Your task to perform on an android device: add a label to a message in the gmail app Image 0: 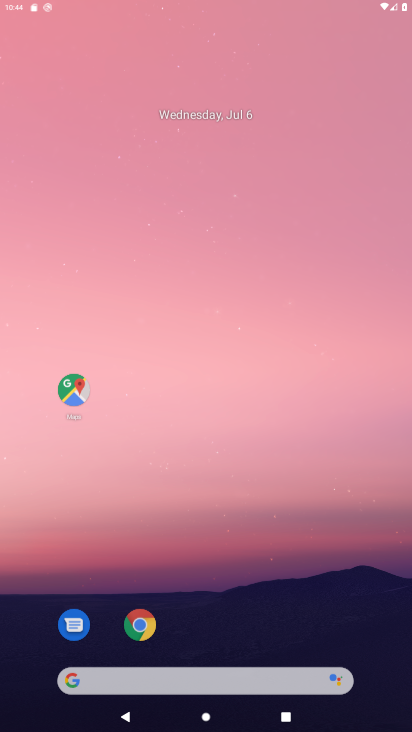
Step 0: click (232, 110)
Your task to perform on an android device: add a label to a message in the gmail app Image 1: 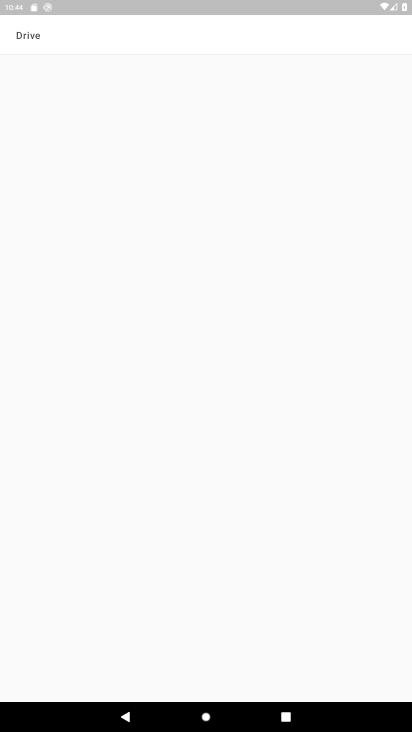
Step 1: drag from (224, 631) to (240, 172)
Your task to perform on an android device: add a label to a message in the gmail app Image 2: 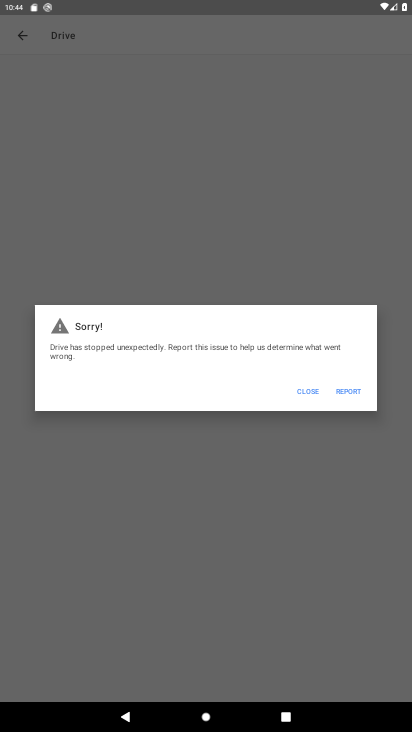
Step 2: press home button
Your task to perform on an android device: add a label to a message in the gmail app Image 3: 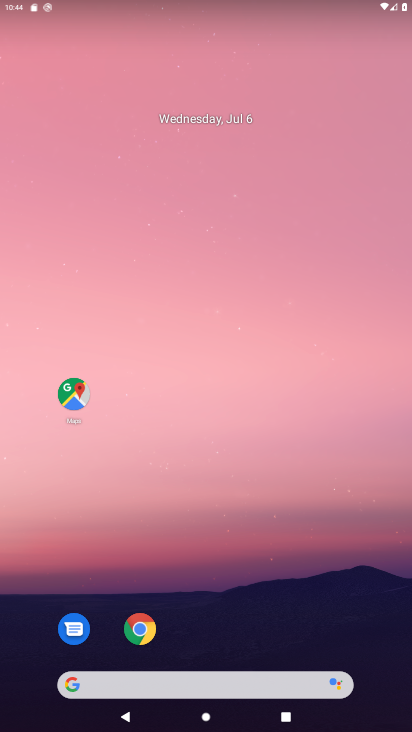
Step 3: drag from (217, 647) to (214, 130)
Your task to perform on an android device: add a label to a message in the gmail app Image 4: 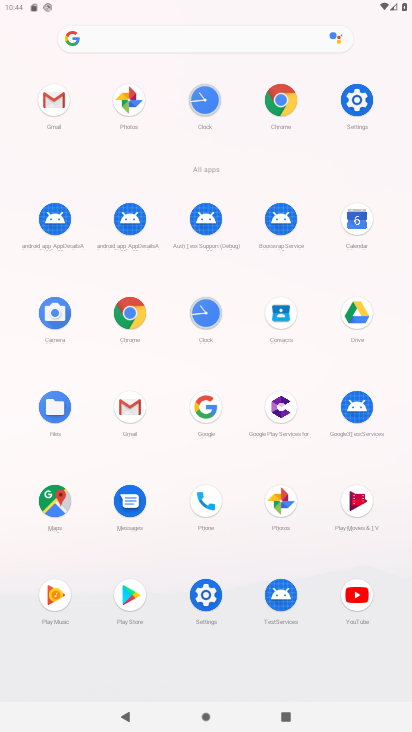
Step 4: click (53, 95)
Your task to perform on an android device: add a label to a message in the gmail app Image 5: 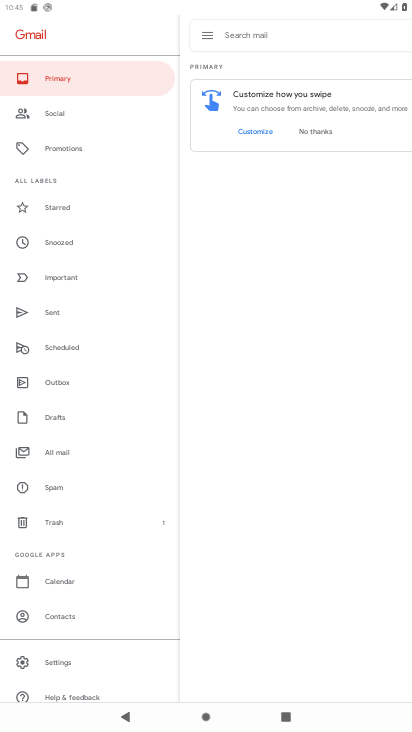
Step 5: click (312, 132)
Your task to perform on an android device: add a label to a message in the gmail app Image 6: 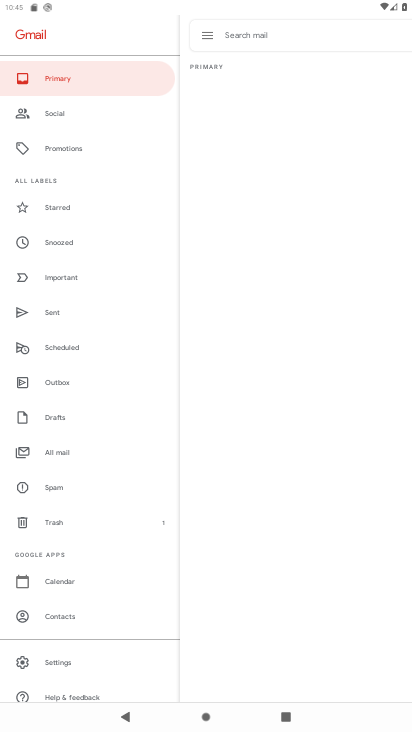
Step 6: task complete